Your task to perform on an android device: Open the calendar and show me this week's events? Image 0: 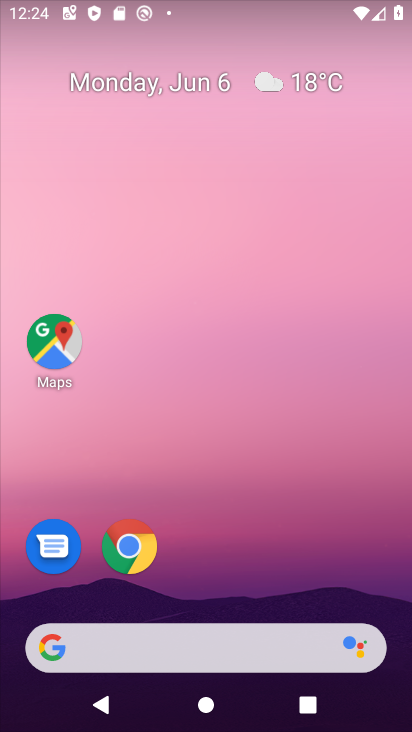
Step 0: drag from (245, 489) to (188, 125)
Your task to perform on an android device: Open the calendar and show me this week's events? Image 1: 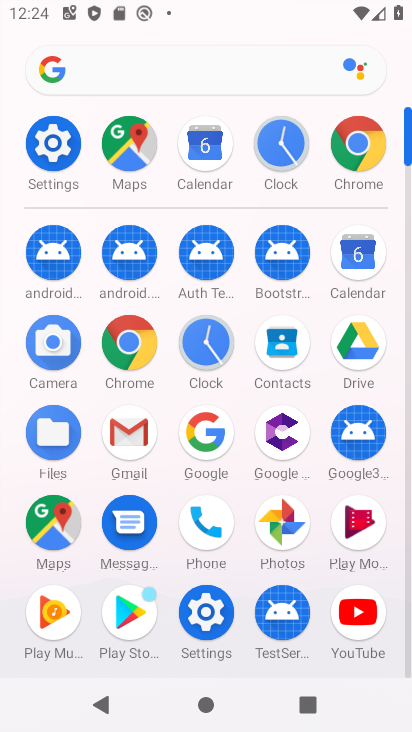
Step 1: click (348, 251)
Your task to perform on an android device: Open the calendar and show me this week's events? Image 2: 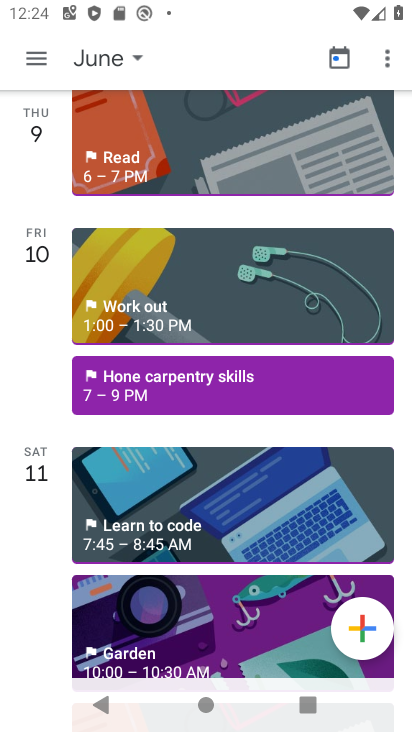
Step 2: task complete